Your task to perform on an android device: Open the map Image 0: 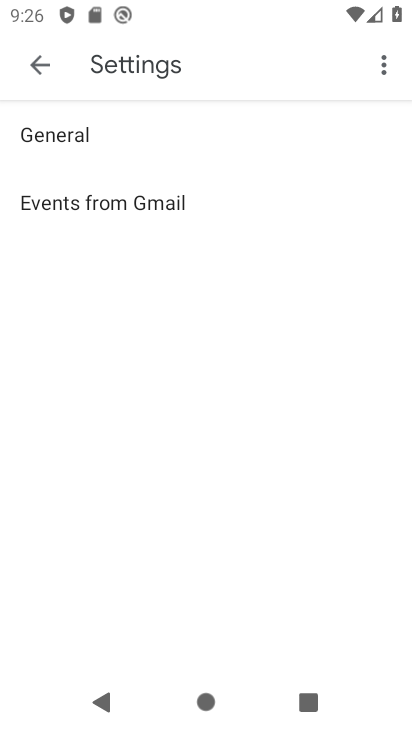
Step 0: press home button
Your task to perform on an android device: Open the map Image 1: 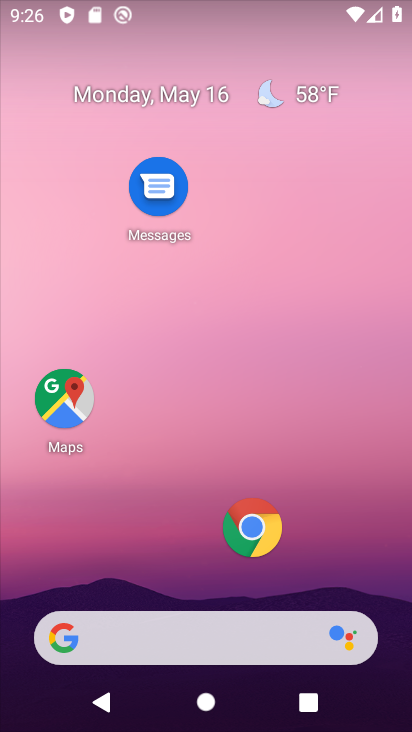
Step 1: click (75, 402)
Your task to perform on an android device: Open the map Image 2: 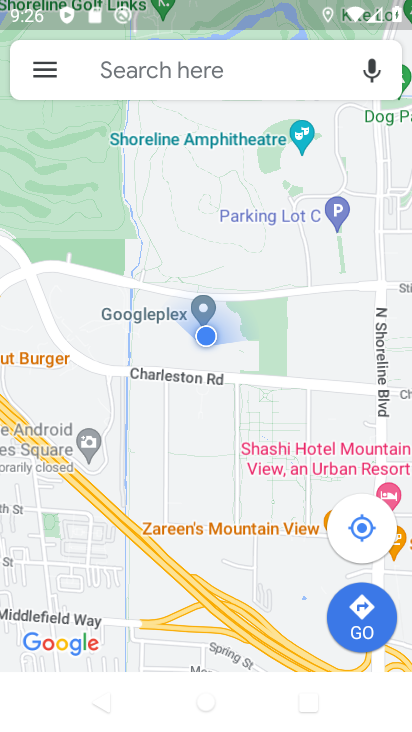
Step 2: task complete